Your task to perform on an android device: turn on airplane mode Image 0: 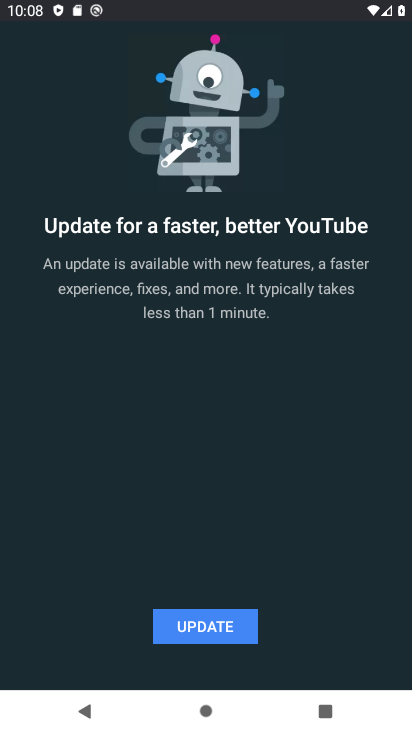
Step 0: press home button
Your task to perform on an android device: turn on airplane mode Image 1: 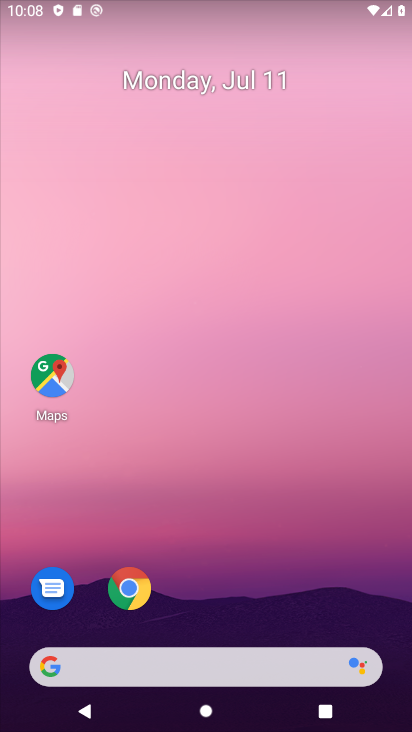
Step 1: drag from (186, 673) to (306, 14)
Your task to perform on an android device: turn on airplane mode Image 2: 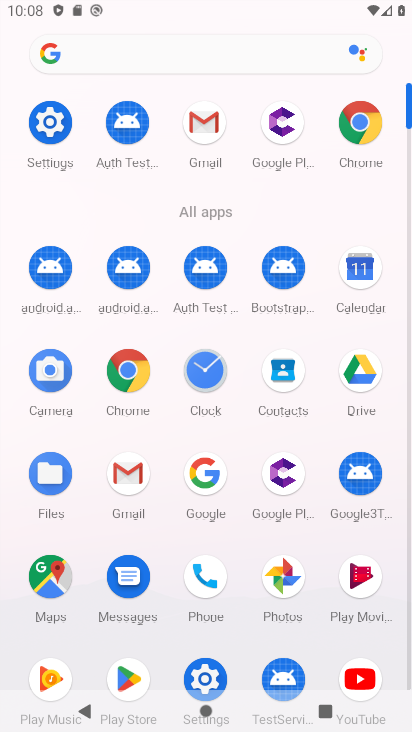
Step 2: click (47, 125)
Your task to perform on an android device: turn on airplane mode Image 3: 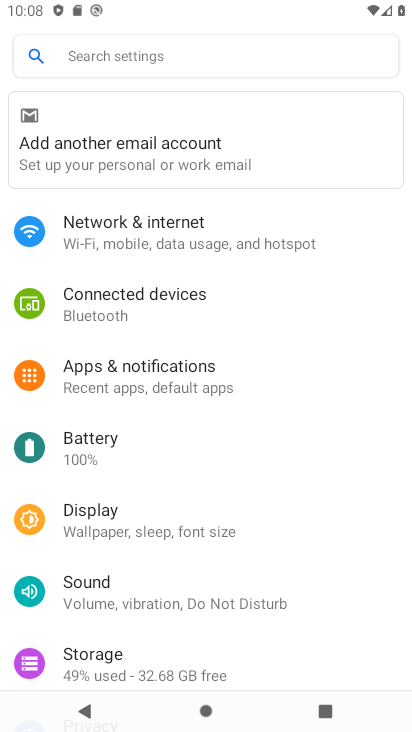
Step 3: click (139, 240)
Your task to perform on an android device: turn on airplane mode Image 4: 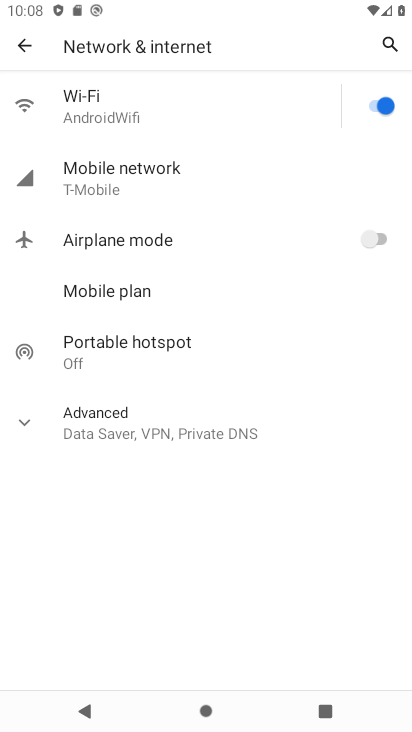
Step 4: click (380, 234)
Your task to perform on an android device: turn on airplane mode Image 5: 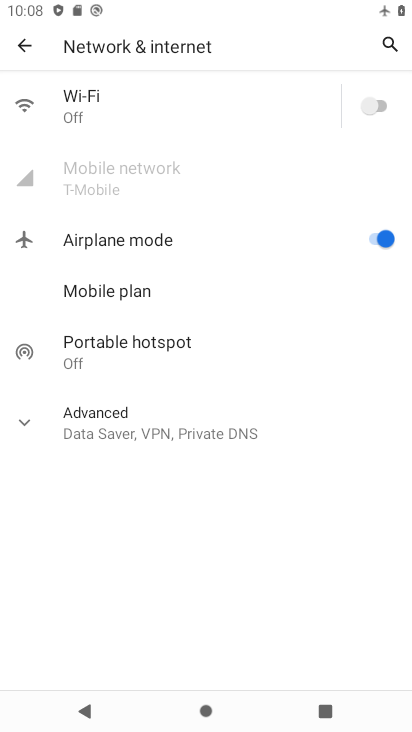
Step 5: task complete